Your task to perform on an android device: Show me productivity apps on the Play Store Image 0: 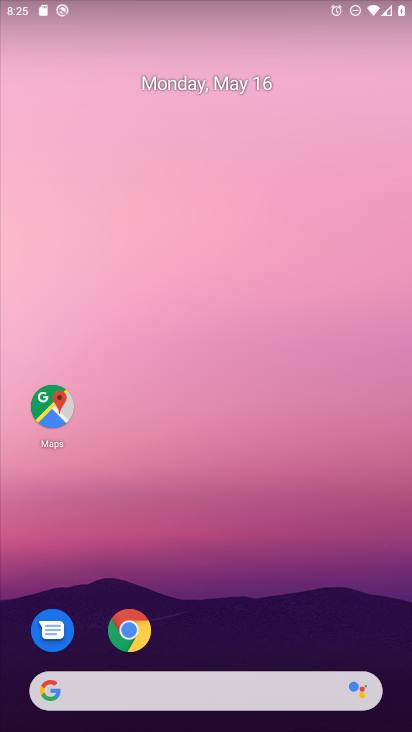
Step 0: drag from (232, 596) to (170, 257)
Your task to perform on an android device: Show me productivity apps on the Play Store Image 1: 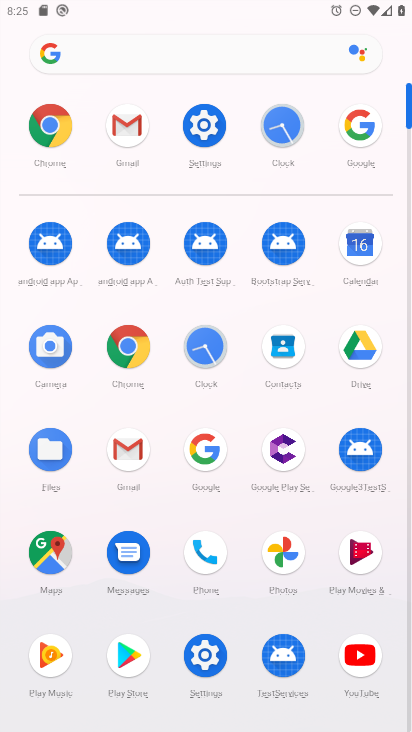
Step 1: click (115, 656)
Your task to perform on an android device: Show me productivity apps on the Play Store Image 2: 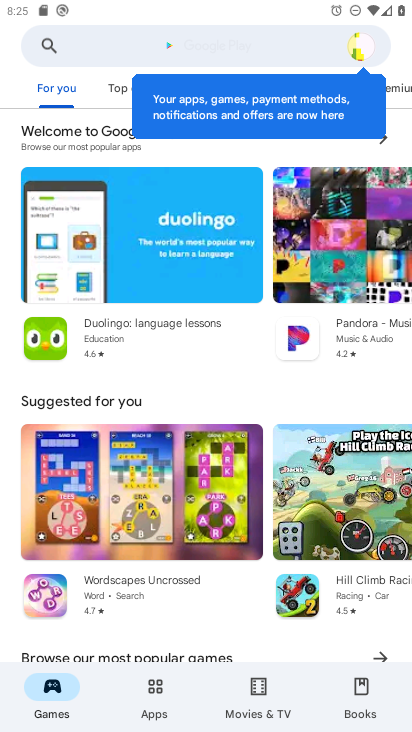
Step 2: click (166, 43)
Your task to perform on an android device: Show me productivity apps on the Play Store Image 3: 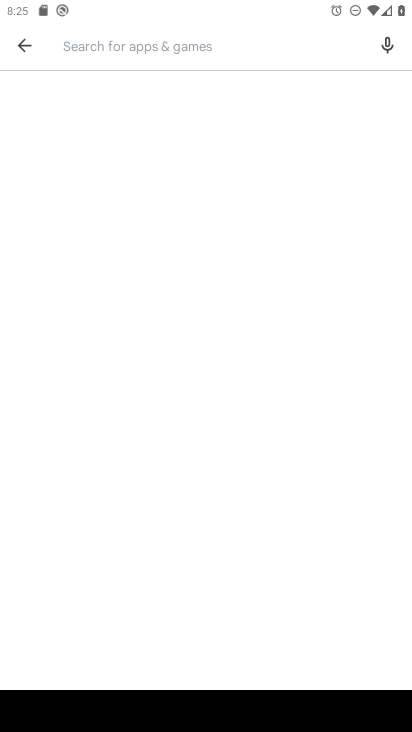
Step 3: type "productivity apps"
Your task to perform on an android device: Show me productivity apps on the Play Store Image 4: 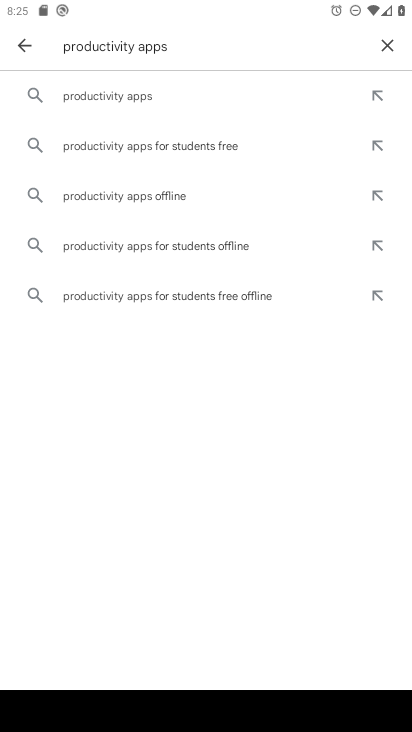
Step 4: click (221, 104)
Your task to perform on an android device: Show me productivity apps on the Play Store Image 5: 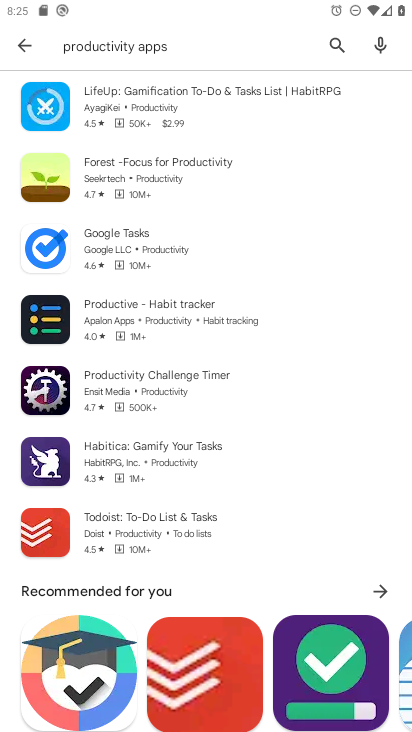
Step 5: task complete